Your task to perform on an android device: open app "Google Play Music" (install if not already installed) Image 0: 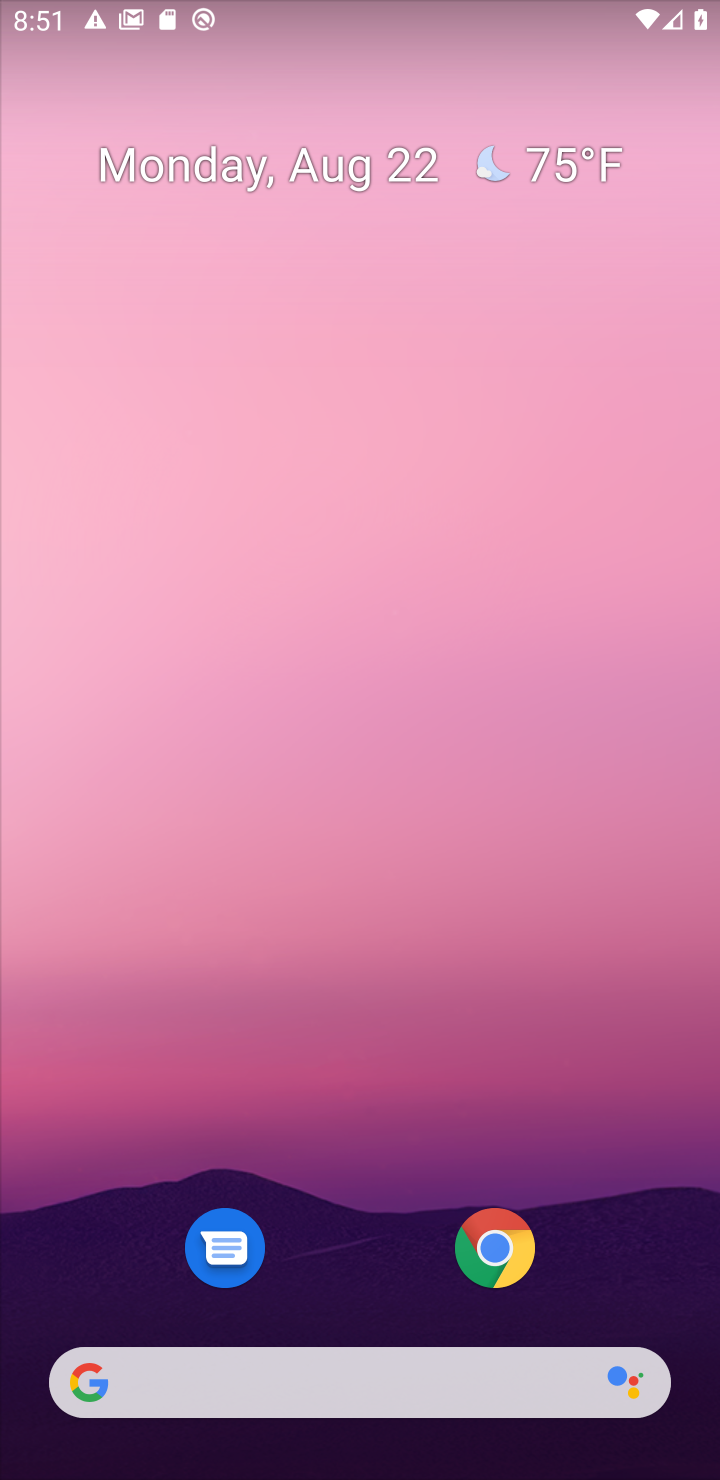
Step 0: drag from (364, 1265) to (375, 17)
Your task to perform on an android device: open app "Google Play Music" (install if not already installed) Image 1: 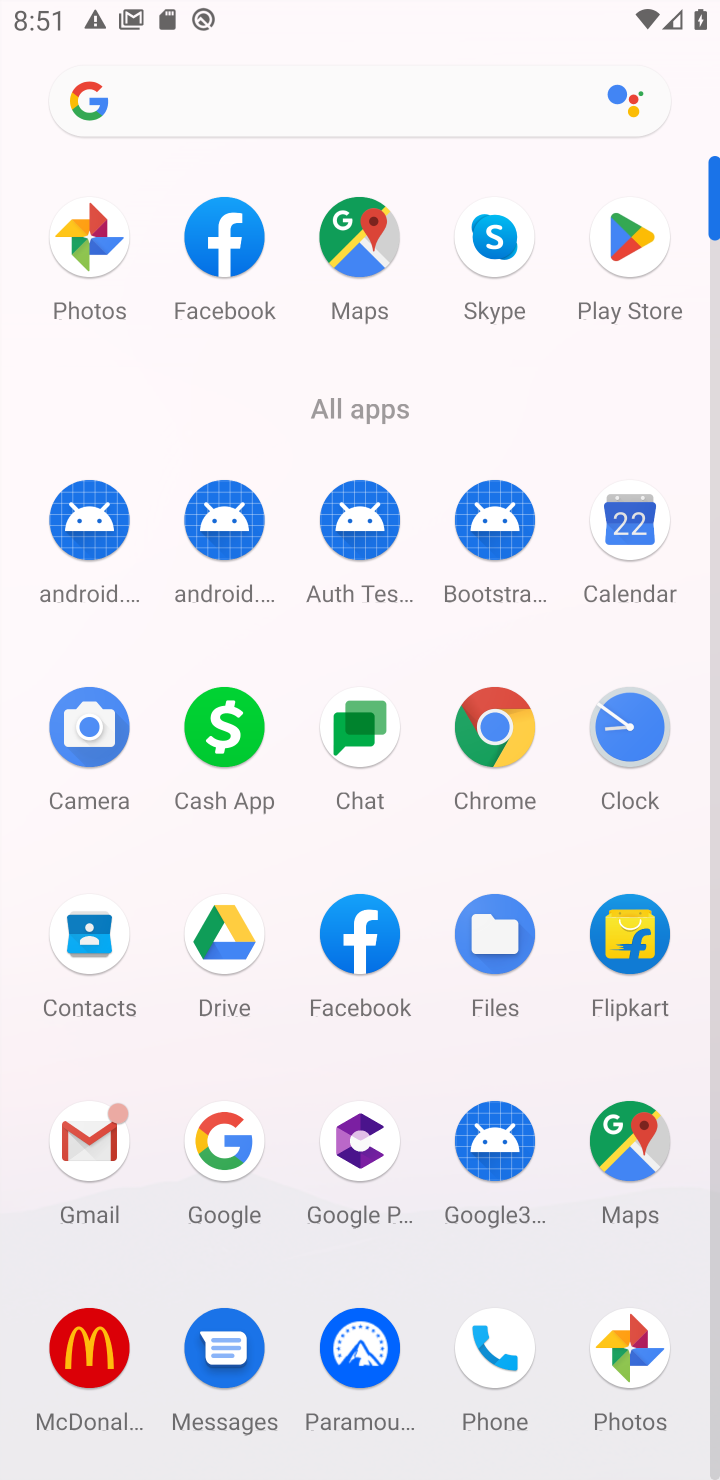
Step 1: click (632, 231)
Your task to perform on an android device: open app "Google Play Music" (install if not already installed) Image 2: 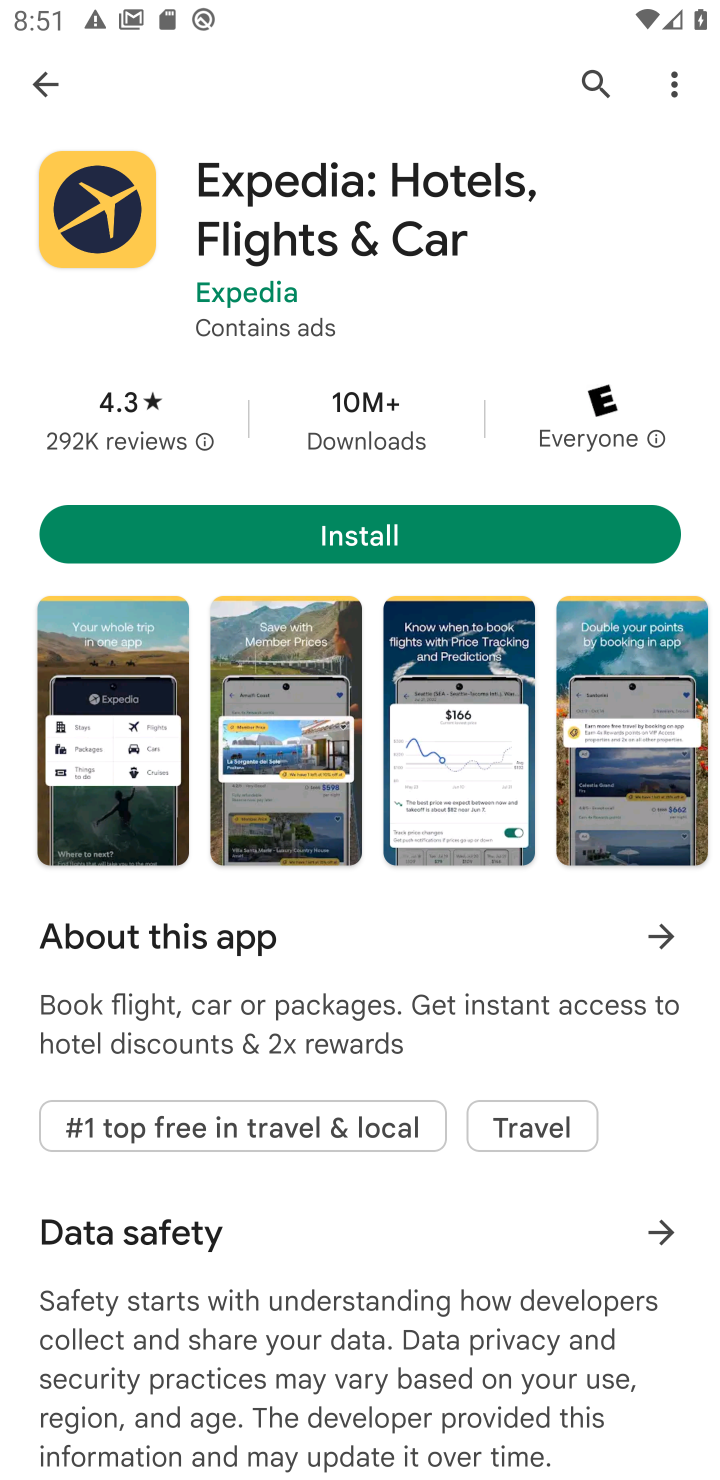
Step 2: click (587, 68)
Your task to perform on an android device: open app "Google Play Music" (install if not already installed) Image 3: 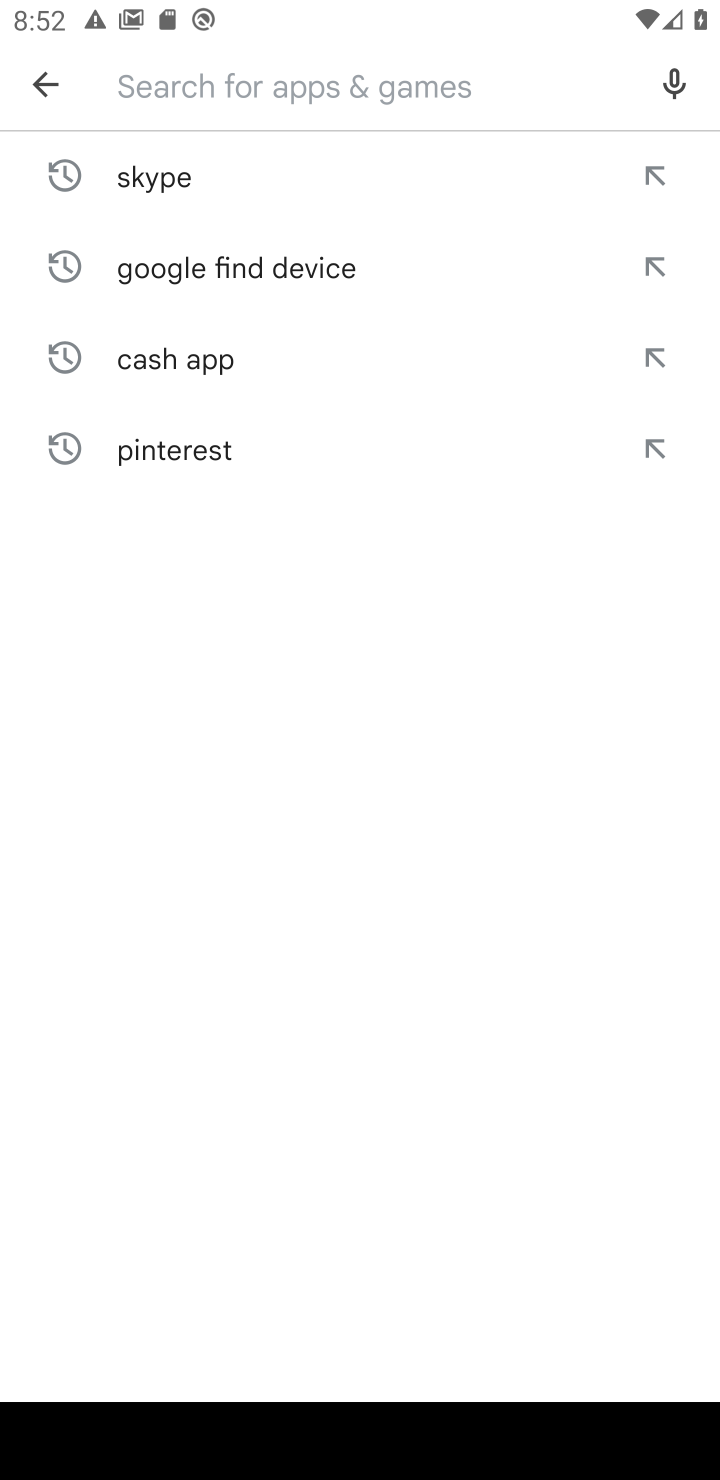
Step 3: type "Google Play Music"
Your task to perform on an android device: open app "Google Play Music" (install if not already installed) Image 4: 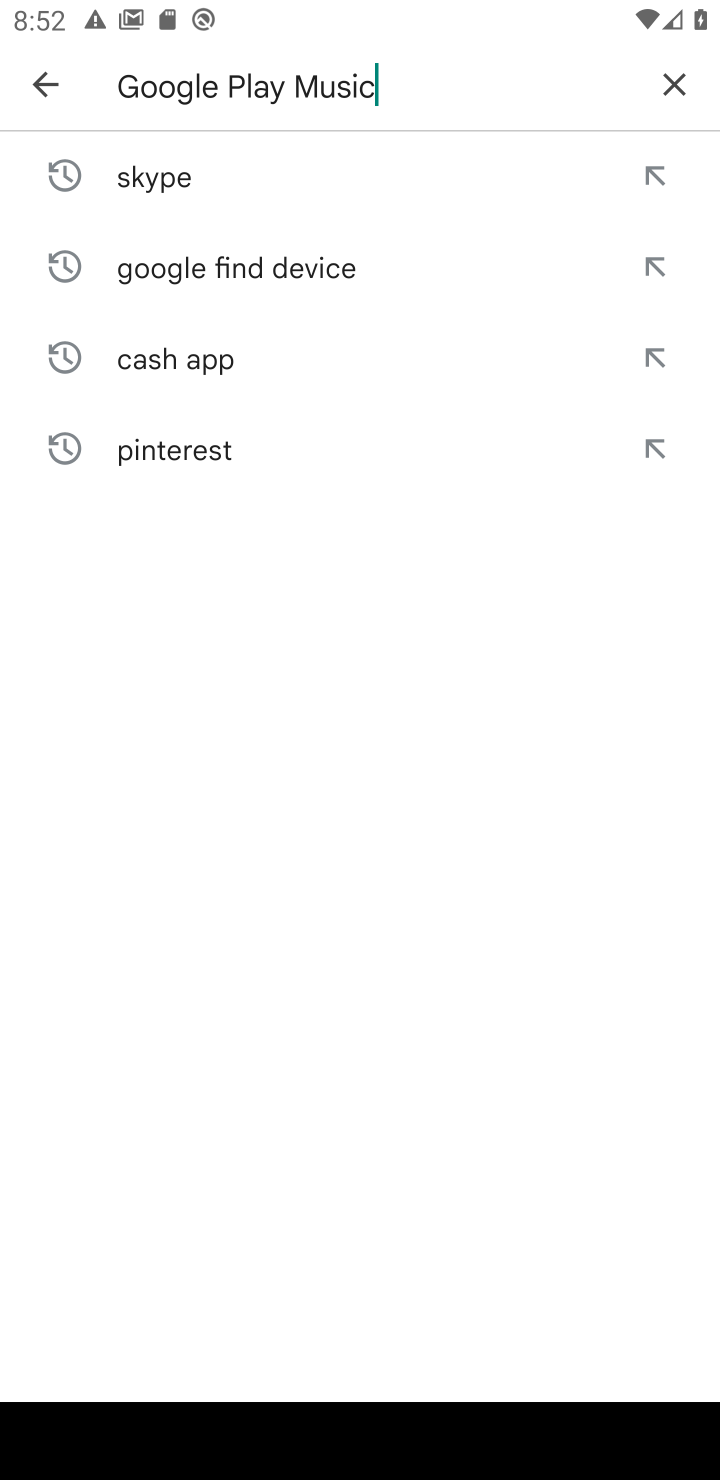
Step 4: type ""
Your task to perform on an android device: open app "Google Play Music" (install if not already installed) Image 5: 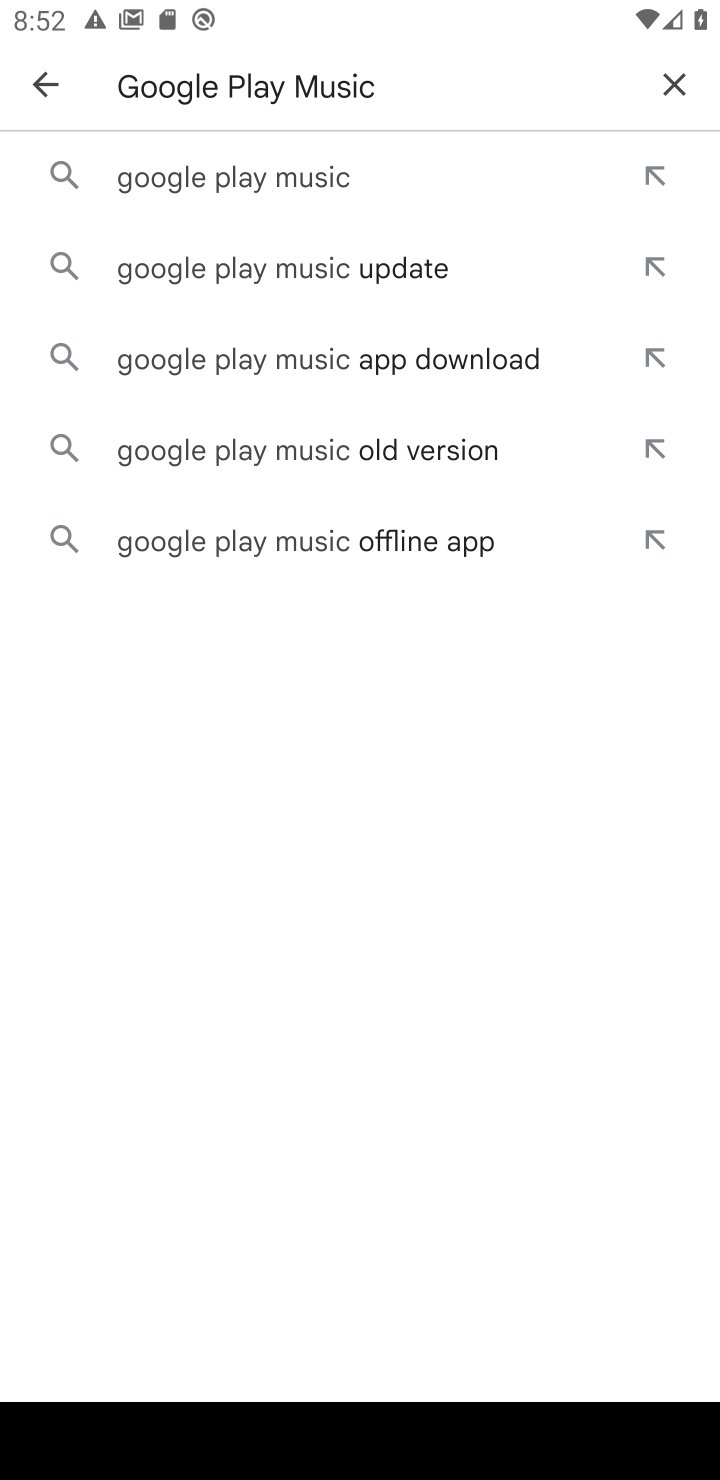
Step 5: click (266, 164)
Your task to perform on an android device: open app "Google Play Music" (install if not already installed) Image 6: 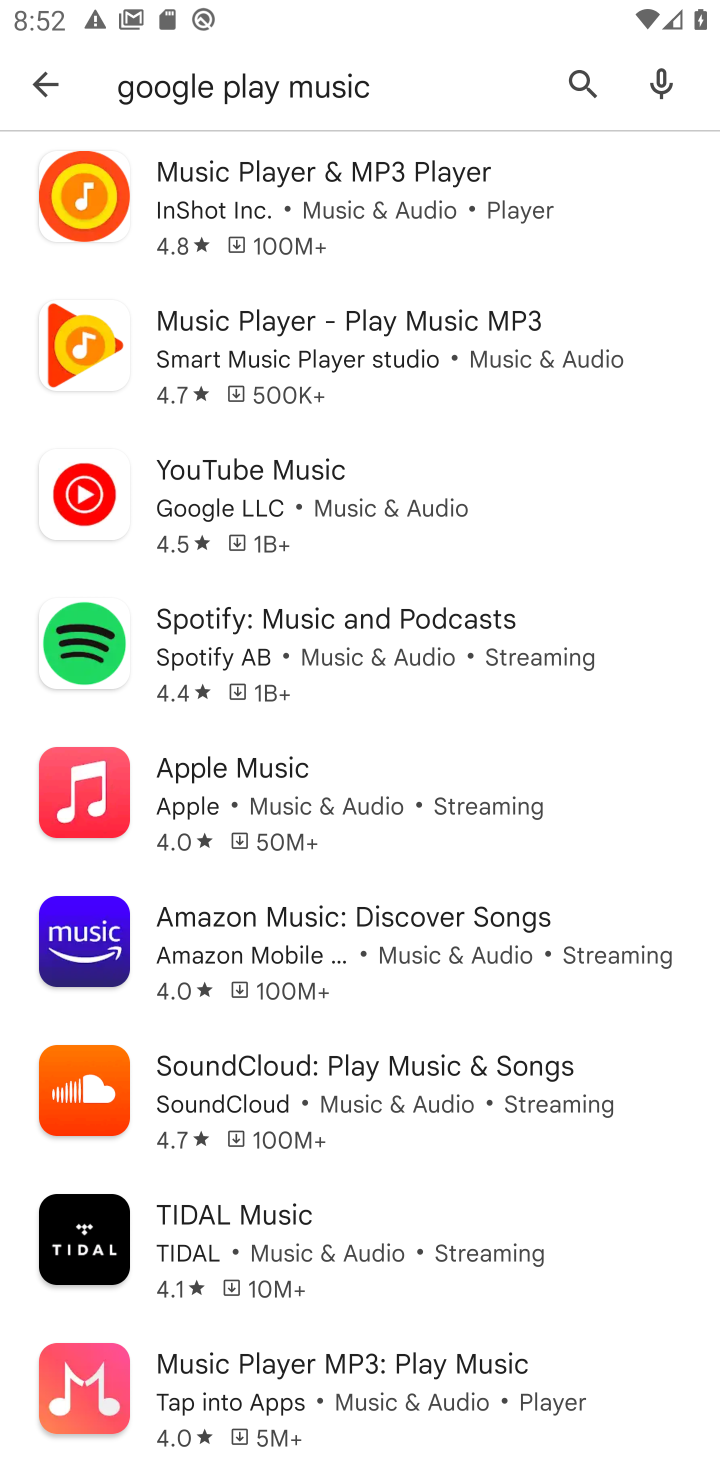
Step 6: task complete